Your task to perform on an android device: Open Google Maps and go to "Timeline" Image 0: 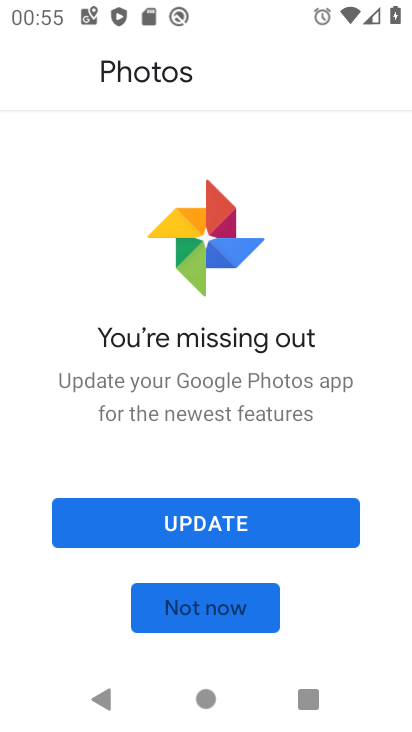
Step 0: press home button
Your task to perform on an android device: Open Google Maps and go to "Timeline" Image 1: 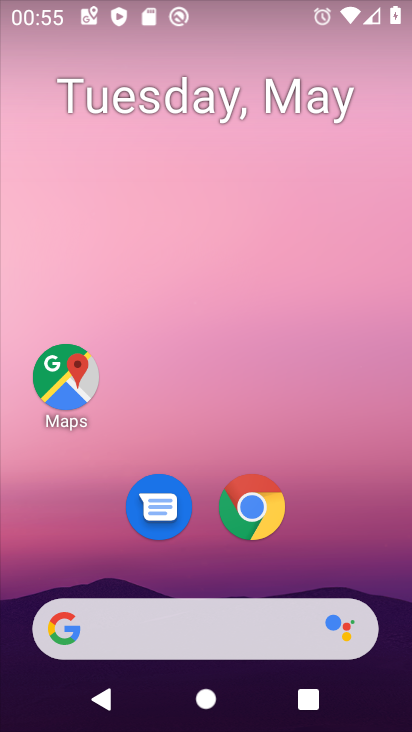
Step 1: drag from (210, 595) to (210, 289)
Your task to perform on an android device: Open Google Maps and go to "Timeline" Image 2: 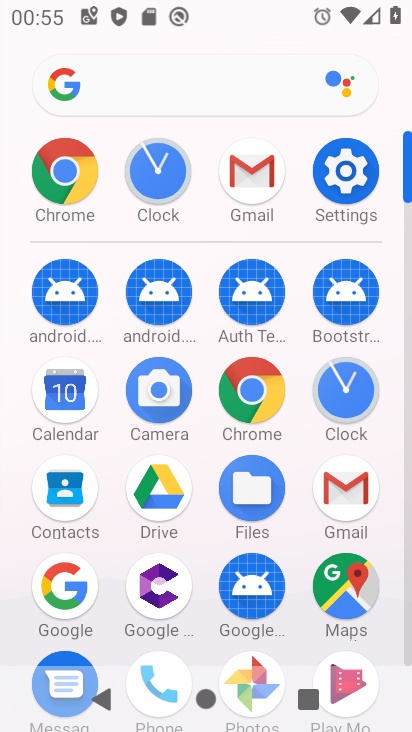
Step 2: click (371, 566)
Your task to perform on an android device: Open Google Maps and go to "Timeline" Image 3: 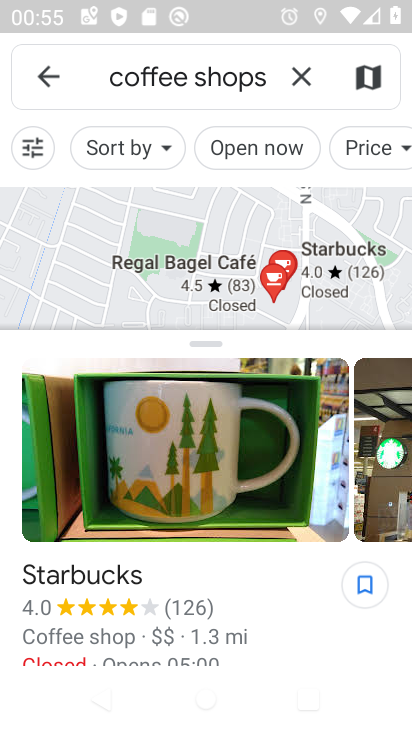
Step 3: click (299, 70)
Your task to perform on an android device: Open Google Maps and go to "Timeline" Image 4: 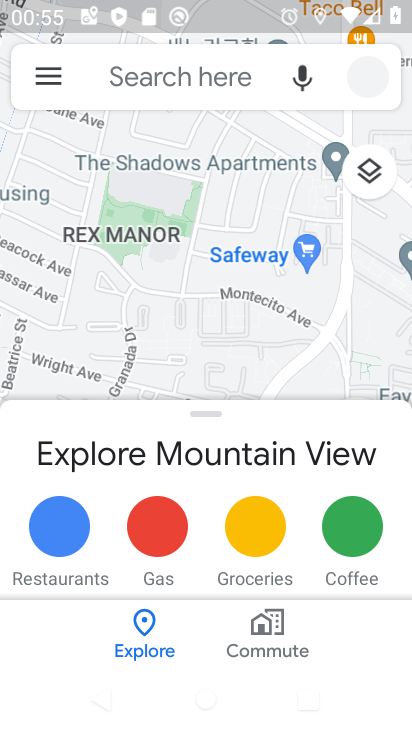
Step 4: click (45, 81)
Your task to perform on an android device: Open Google Maps and go to "Timeline" Image 5: 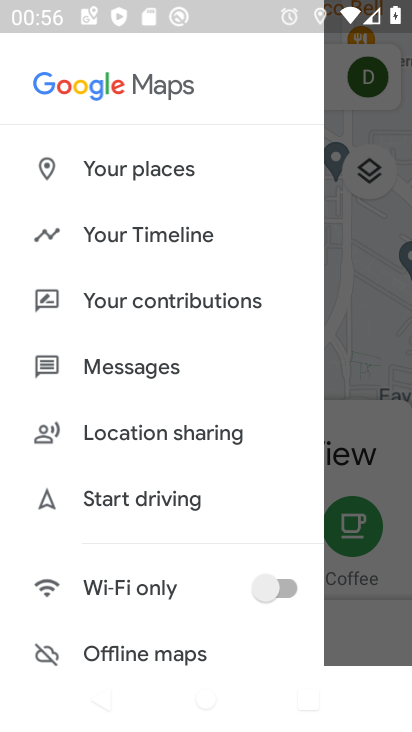
Step 5: click (103, 227)
Your task to perform on an android device: Open Google Maps and go to "Timeline" Image 6: 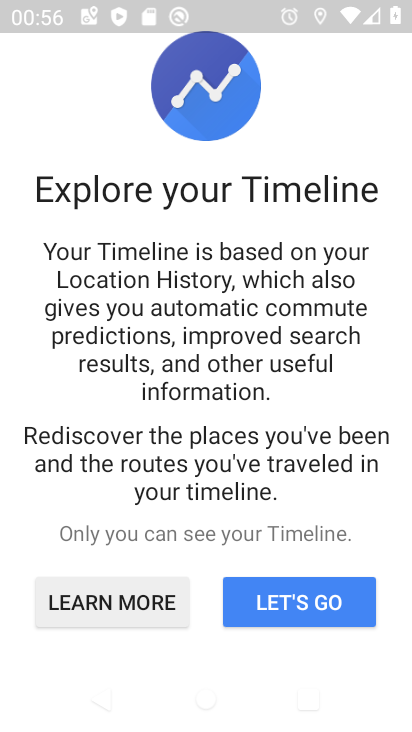
Step 6: click (249, 600)
Your task to perform on an android device: Open Google Maps and go to "Timeline" Image 7: 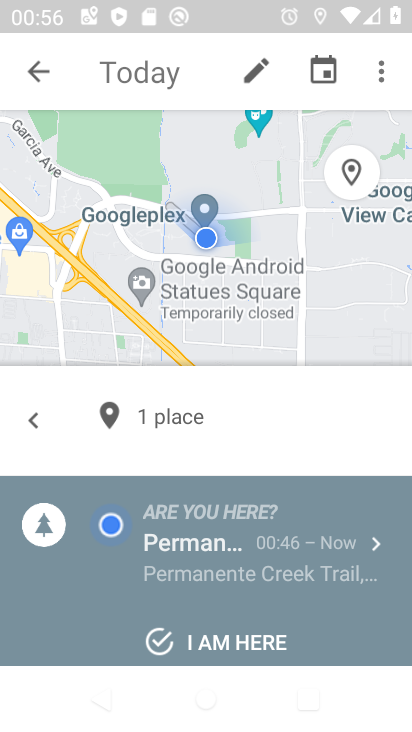
Step 7: task complete